Your task to perform on an android device: Open accessibility settings Image 0: 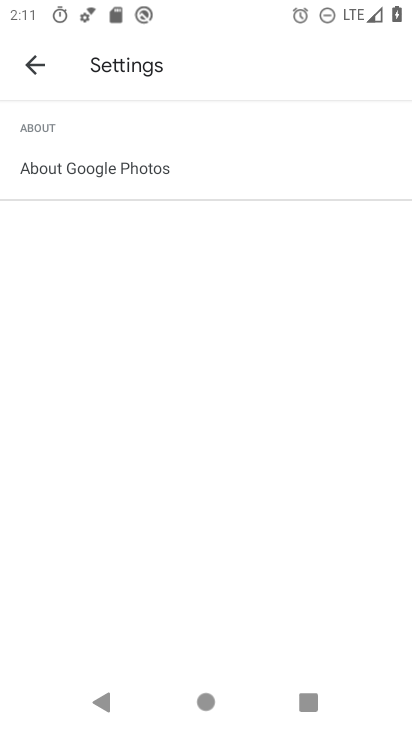
Step 0: press home button
Your task to perform on an android device: Open accessibility settings Image 1: 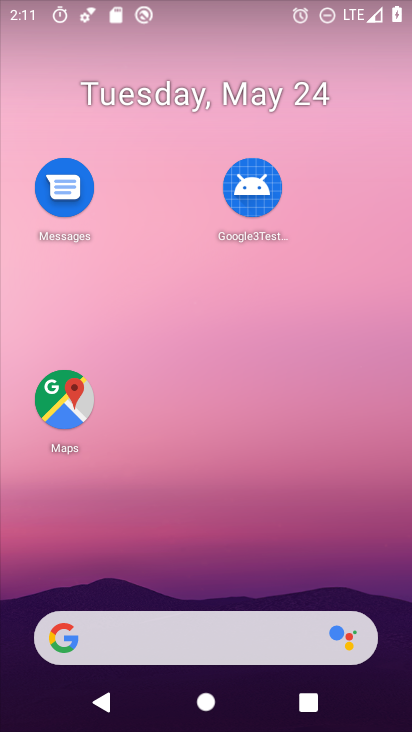
Step 1: drag from (212, 335) to (189, 65)
Your task to perform on an android device: Open accessibility settings Image 2: 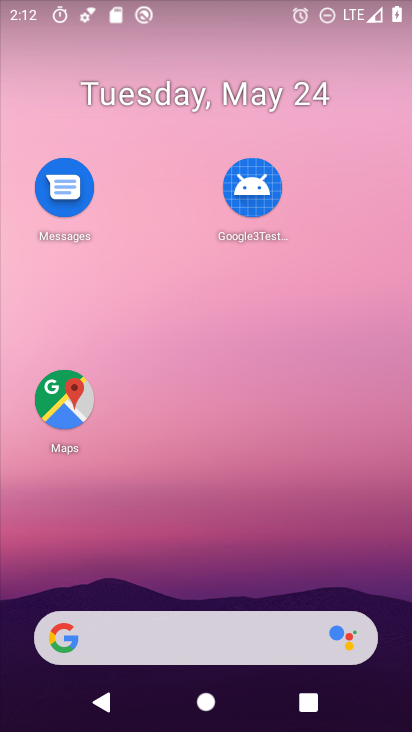
Step 2: drag from (214, 305) to (210, 41)
Your task to perform on an android device: Open accessibility settings Image 3: 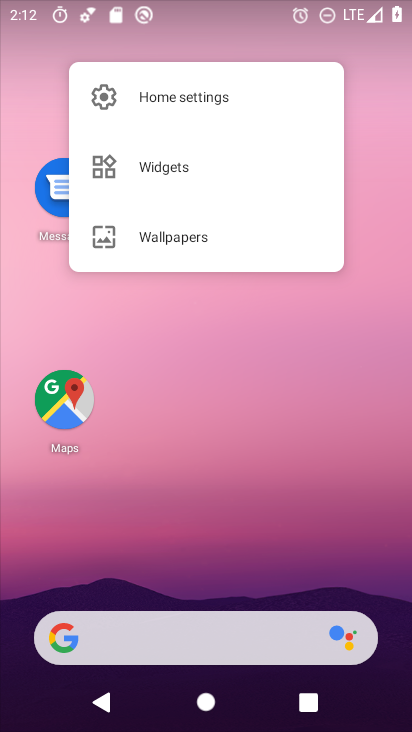
Step 3: click (220, 530)
Your task to perform on an android device: Open accessibility settings Image 4: 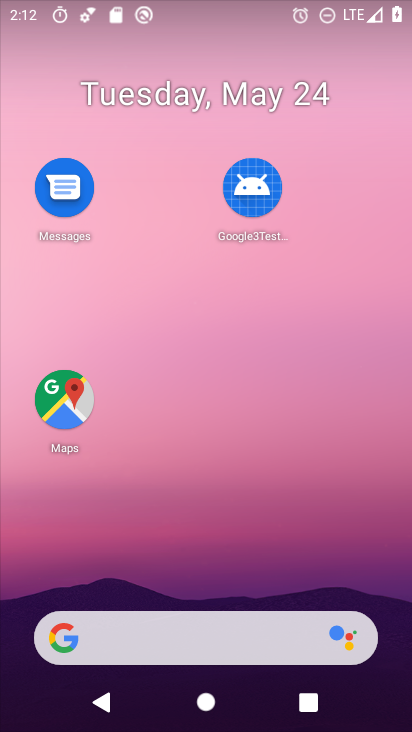
Step 4: drag from (179, 577) to (162, 17)
Your task to perform on an android device: Open accessibility settings Image 5: 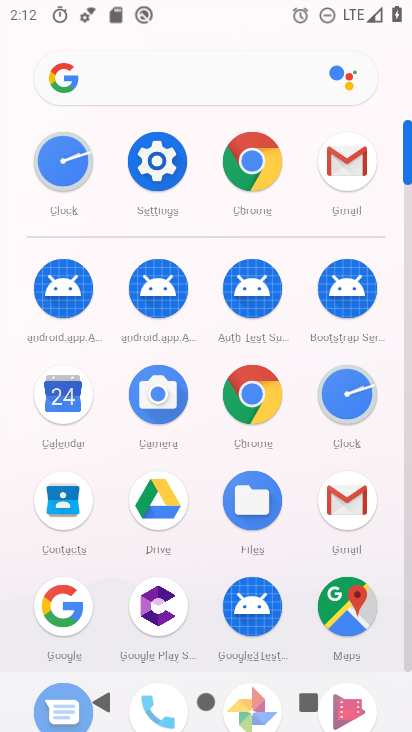
Step 5: click (154, 168)
Your task to perform on an android device: Open accessibility settings Image 6: 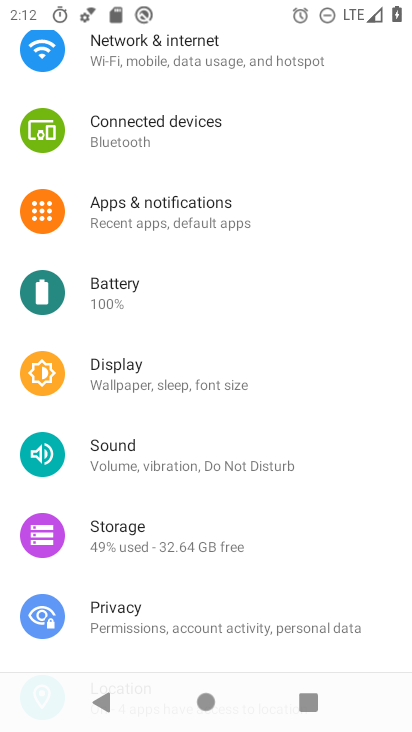
Step 6: drag from (158, 552) to (128, 127)
Your task to perform on an android device: Open accessibility settings Image 7: 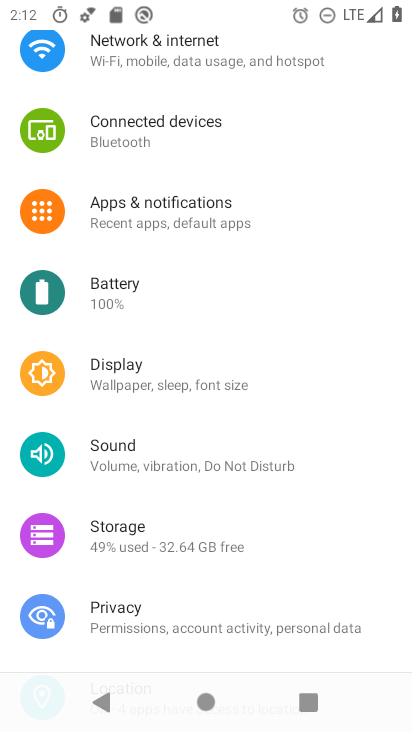
Step 7: drag from (228, 563) to (225, 124)
Your task to perform on an android device: Open accessibility settings Image 8: 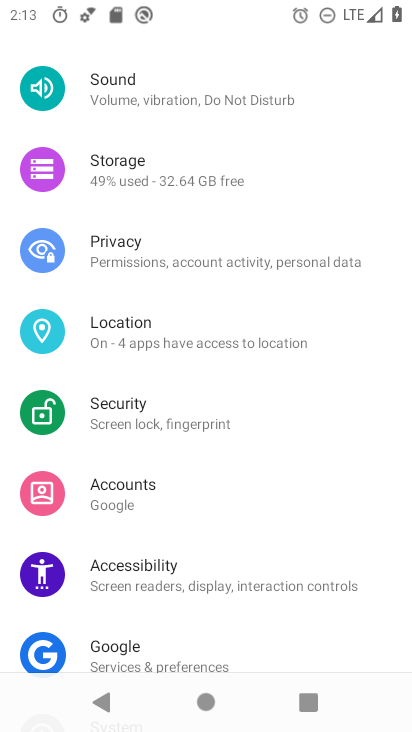
Step 8: click (124, 576)
Your task to perform on an android device: Open accessibility settings Image 9: 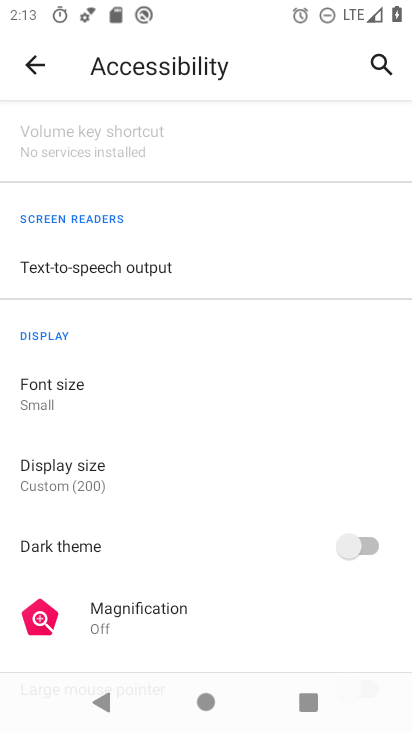
Step 9: task complete